Your task to perform on an android device: Open sound settings Image 0: 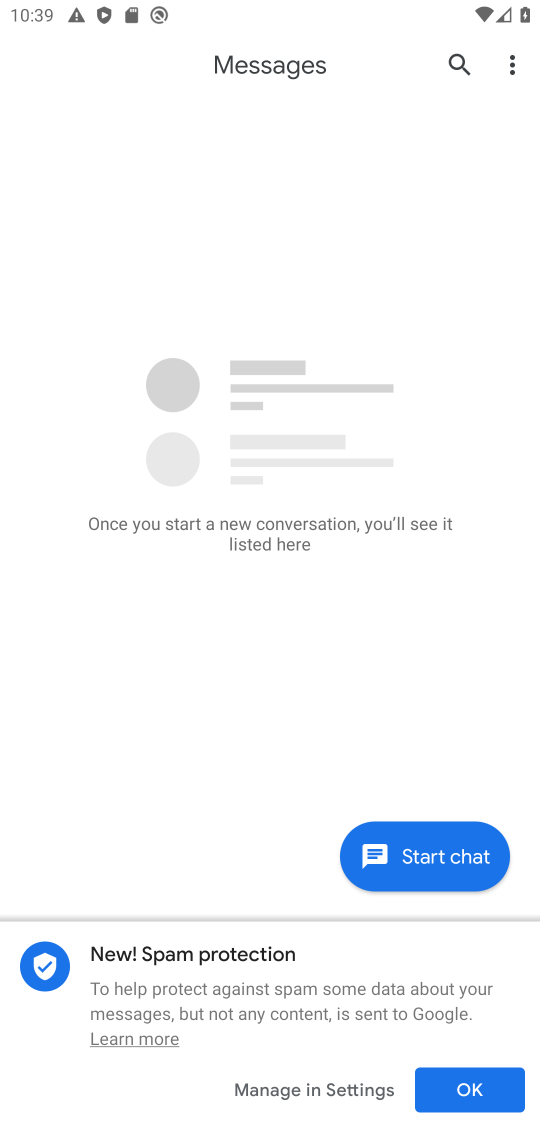
Step 0: press home button
Your task to perform on an android device: Open sound settings Image 1: 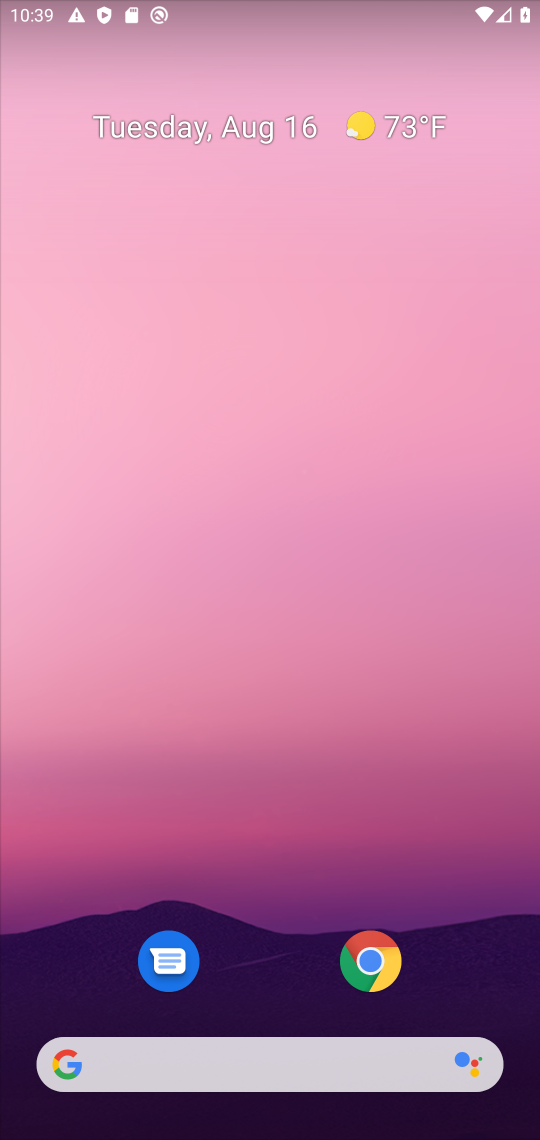
Step 1: drag from (300, 868) to (330, 649)
Your task to perform on an android device: Open sound settings Image 2: 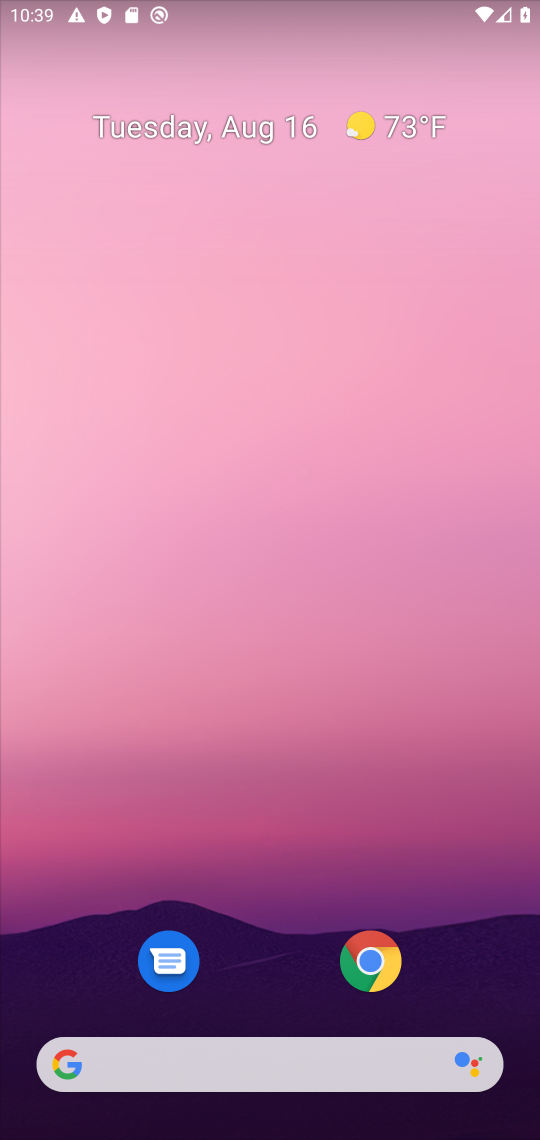
Step 2: drag from (310, 823) to (356, 166)
Your task to perform on an android device: Open sound settings Image 3: 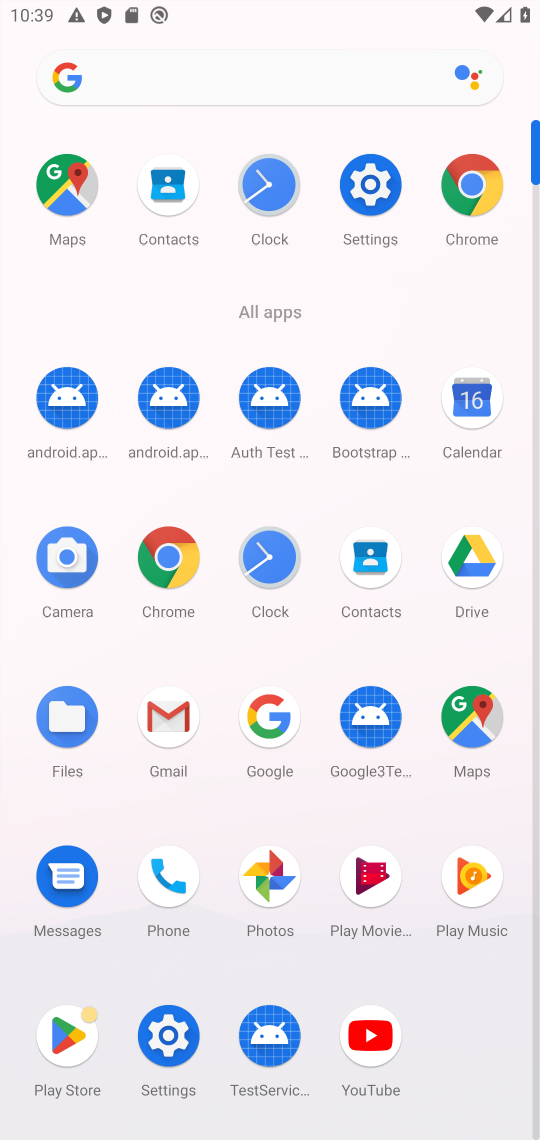
Step 3: click (160, 1036)
Your task to perform on an android device: Open sound settings Image 4: 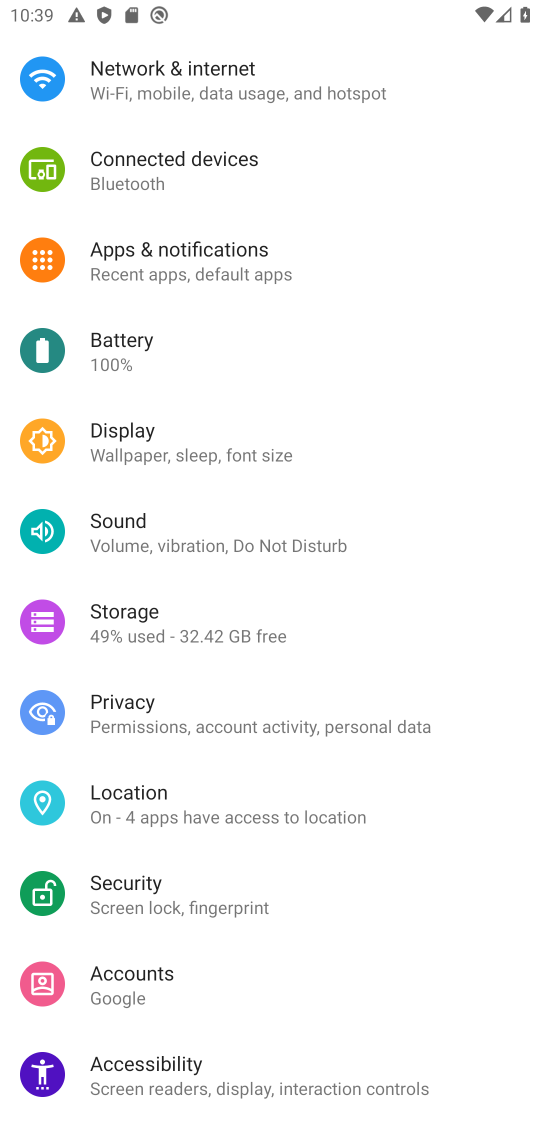
Step 4: click (141, 515)
Your task to perform on an android device: Open sound settings Image 5: 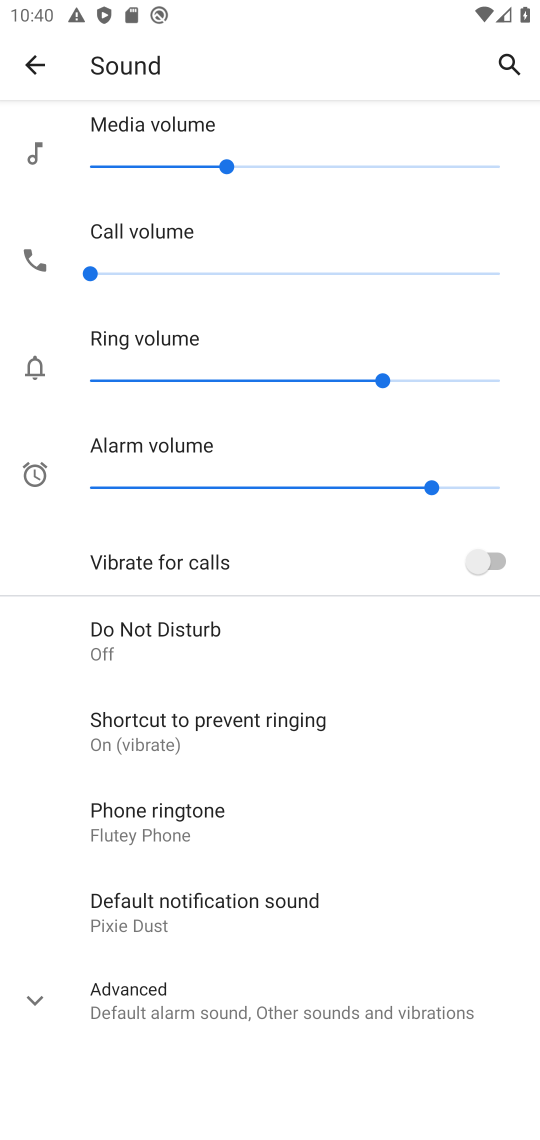
Step 5: task complete